Your task to perform on an android device: open app "Reddit" Image 0: 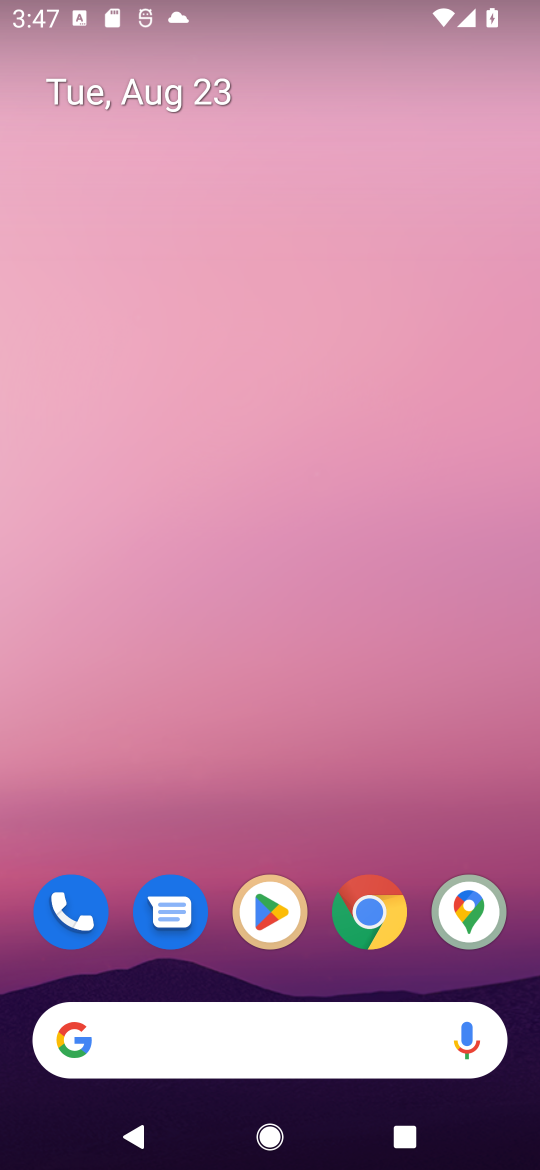
Step 0: drag from (207, 1056) to (219, 62)
Your task to perform on an android device: open app "Reddit" Image 1: 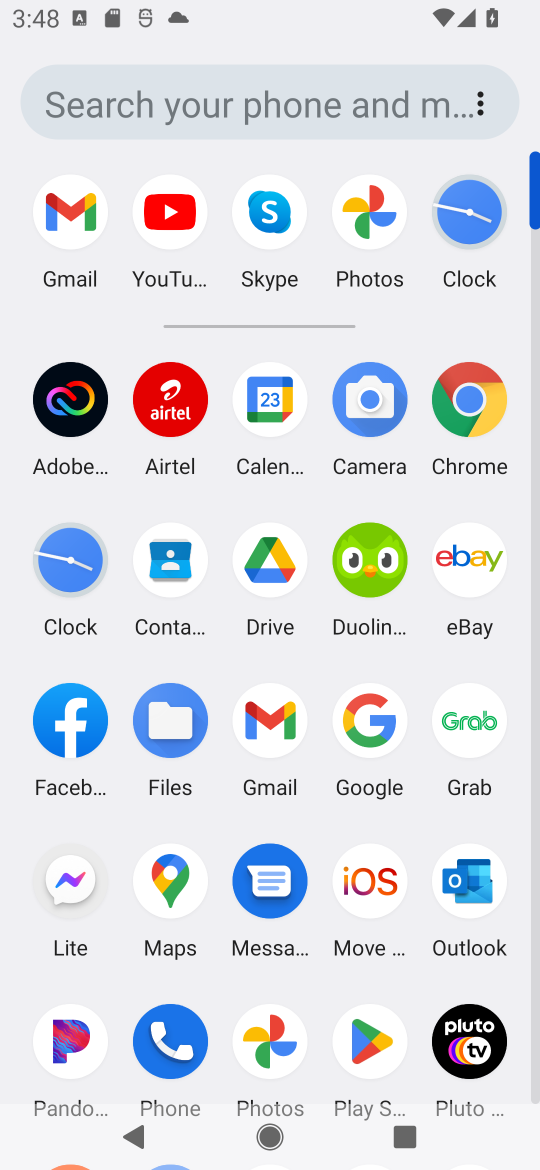
Step 1: click (375, 1050)
Your task to perform on an android device: open app "Reddit" Image 2: 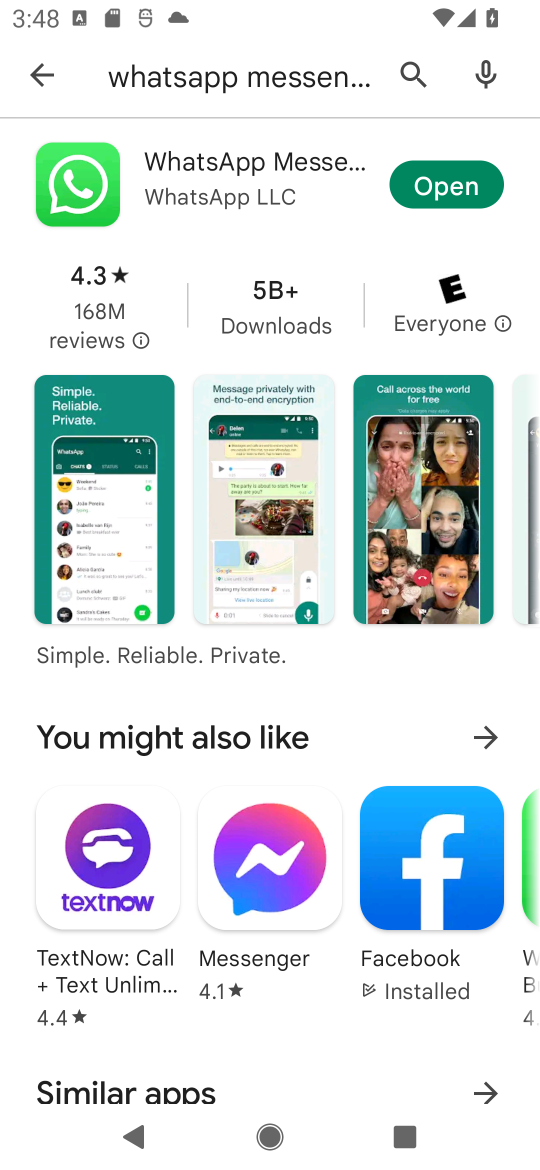
Step 2: press back button
Your task to perform on an android device: open app "Reddit" Image 3: 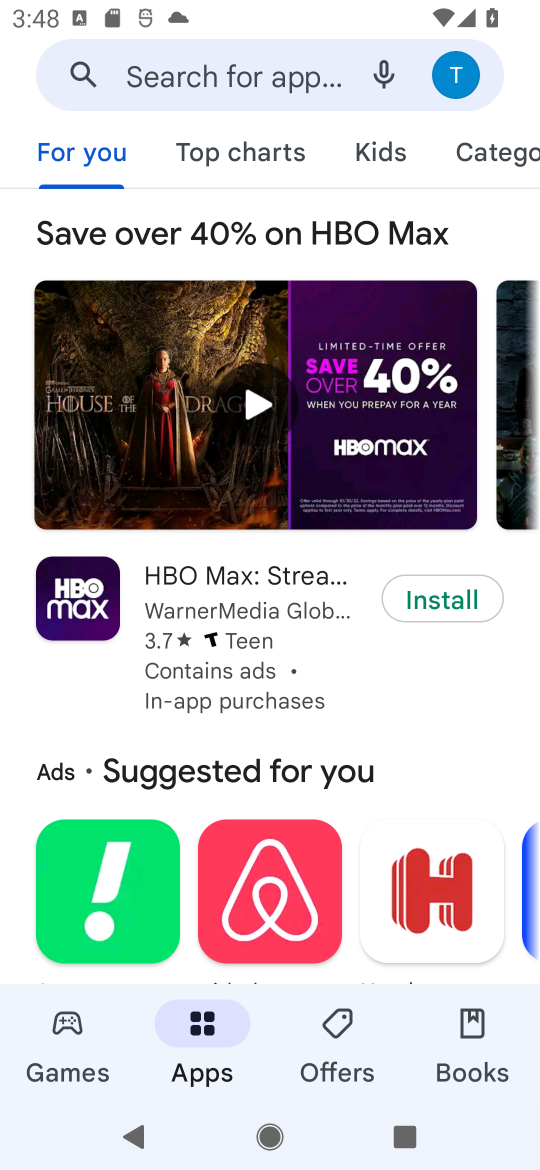
Step 3: press back button
Your task to perform on an android device: open app "Reddit" Image 4: 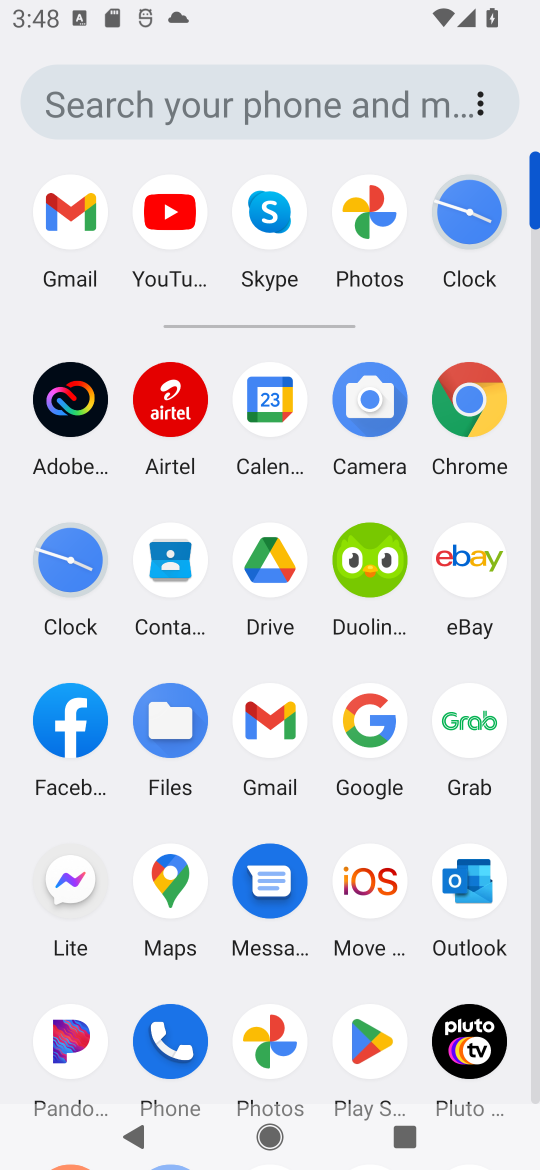
Step 4: click (366, 1035)
Your task to perform on an android device: open app "Reddit" Image 5: 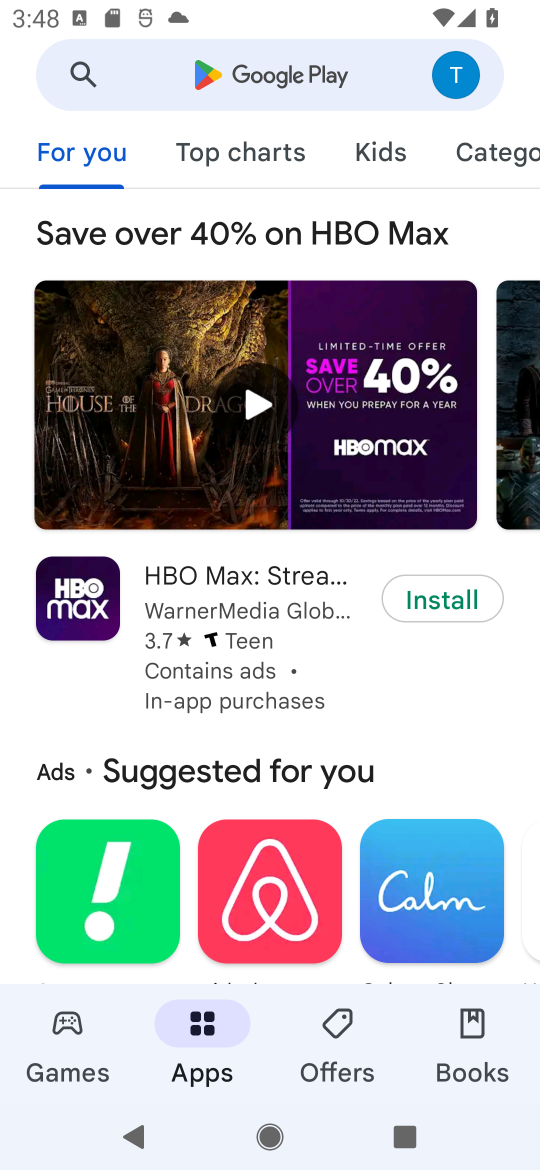
Step 5: click (335, 85)
Your task to perform on an android device: open app "Reddit" Image 6: 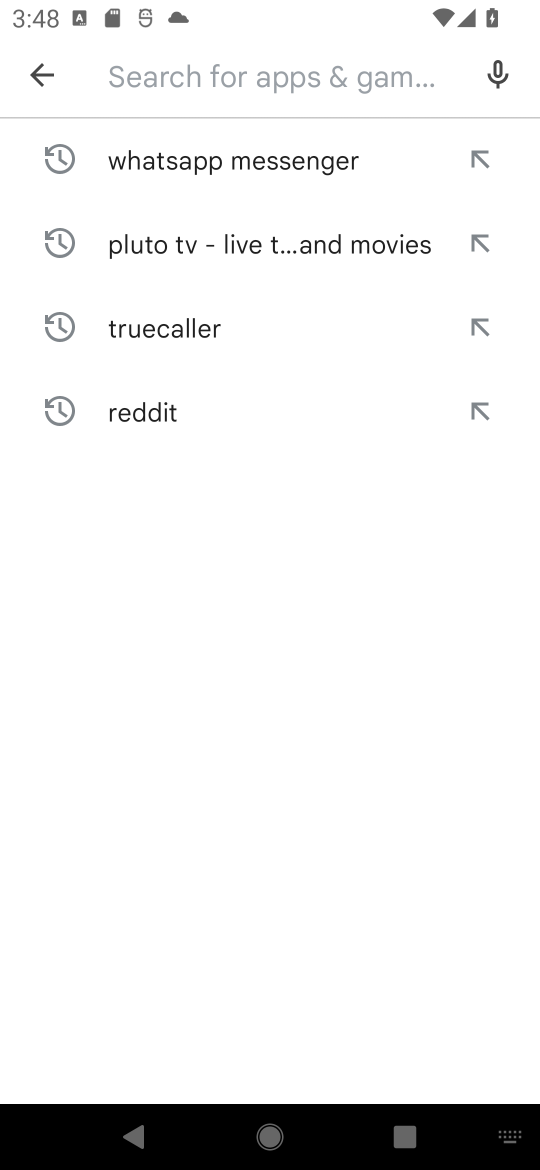
Step 6: click (129, 411)
Your task to perform on an android device: open app "Reddit" Image 7: 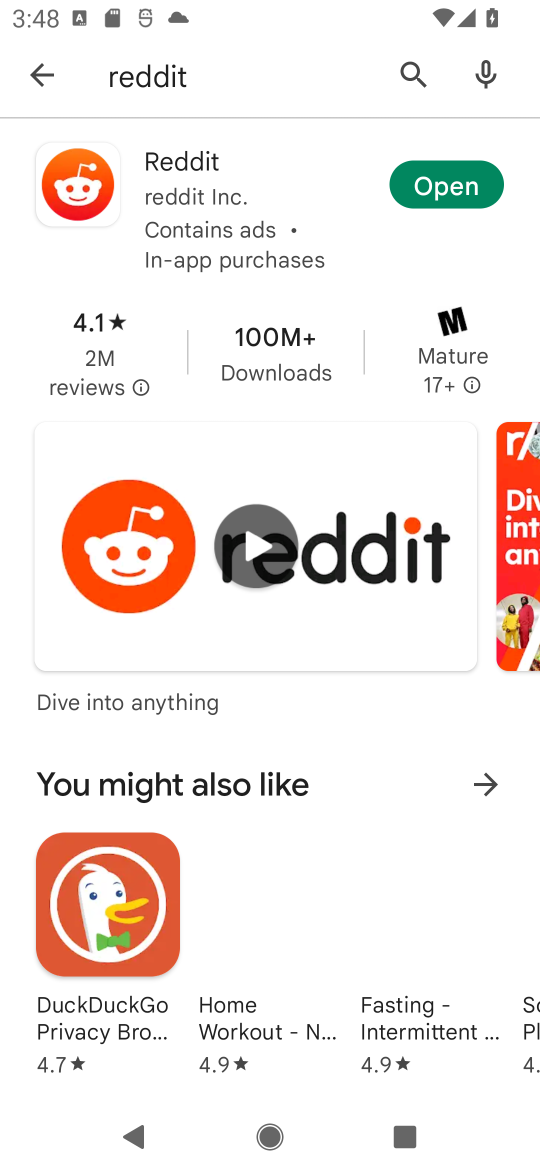
Step 7: click (447, 192)
Your task to perform on an android device: open app "Reddit" Image 8: 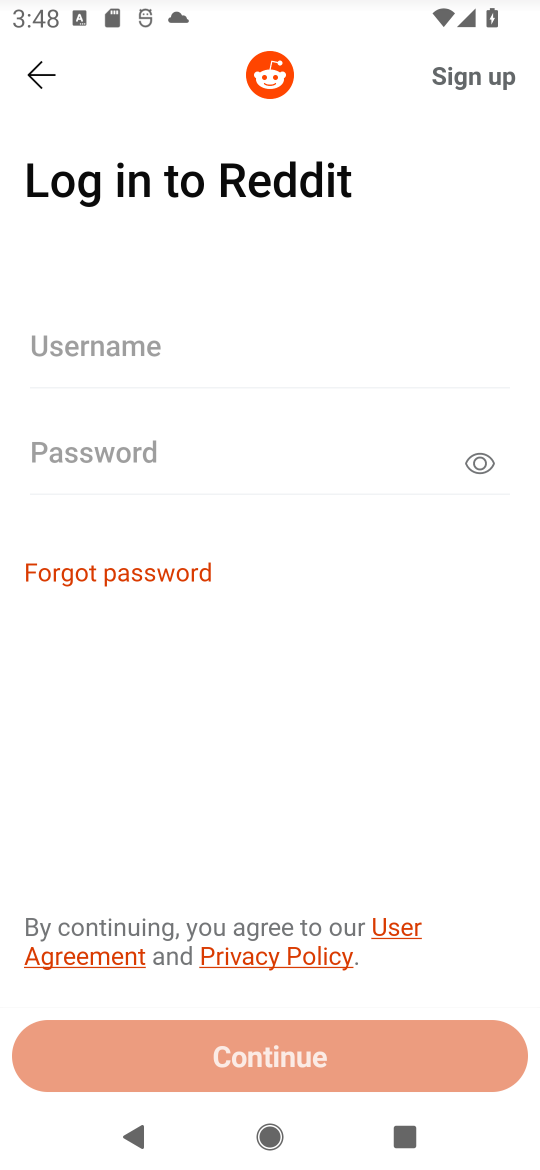
Step 8: task complete